Your task to perform on an android device: turn on the 24-hour format for clock Image 0: 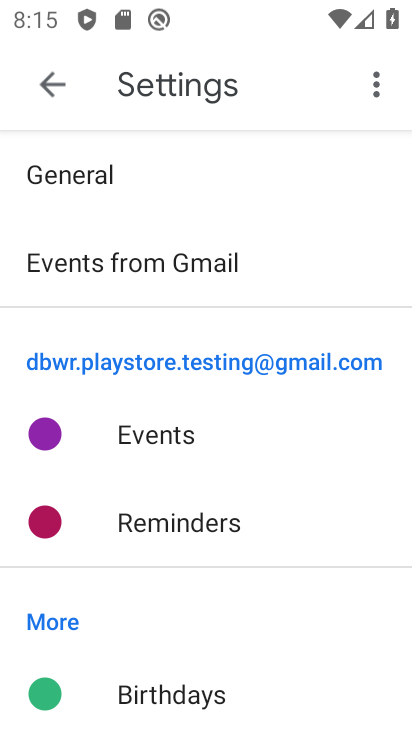
Step 0: press home button
Your task to perform on an android device: turn on the 24-hour format for clock Image 1: 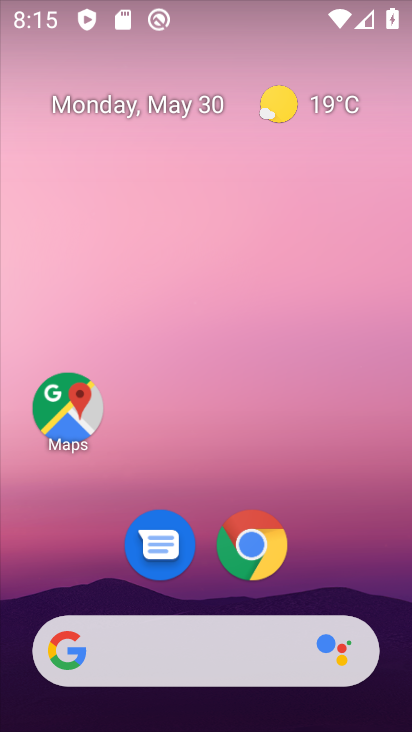
Step 1: drag from (338, 568) to (283, 150)
Your task to perform on an android device: turn on the 24-hour format for clock Image 2: 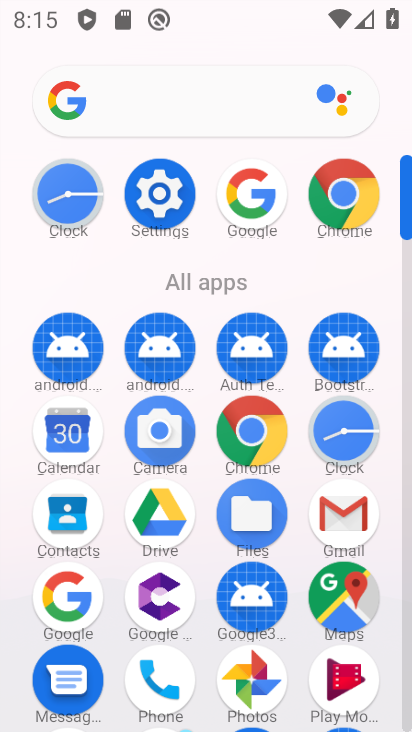
Step 2: click (344, 428)
Your task to perform on an android device: turn on the 24-hour format for clock Image 3: 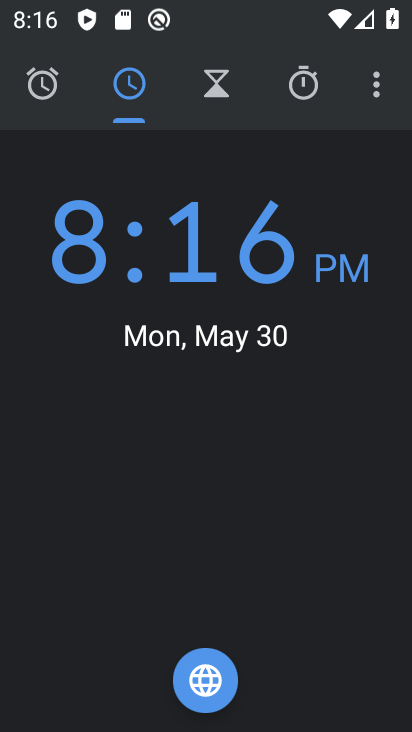
Step 3: click (384, 83)
Your task to perform on an android device: turn on the 24-hour format for clock Image 4: 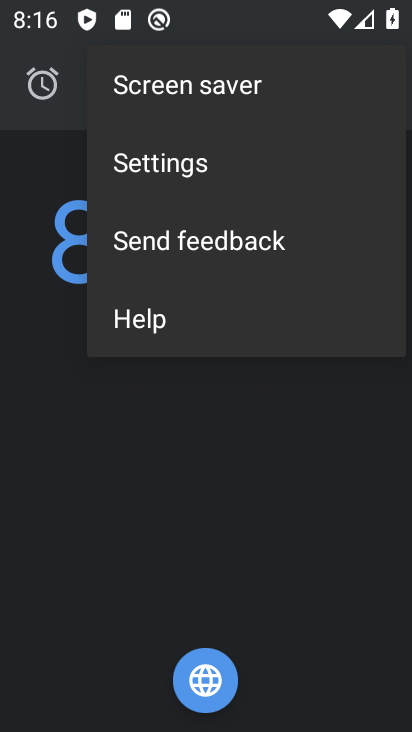
Step 4: click (215, 152)
Your task to perform on an android device: turn on the 24-hour format for clock Image 5: 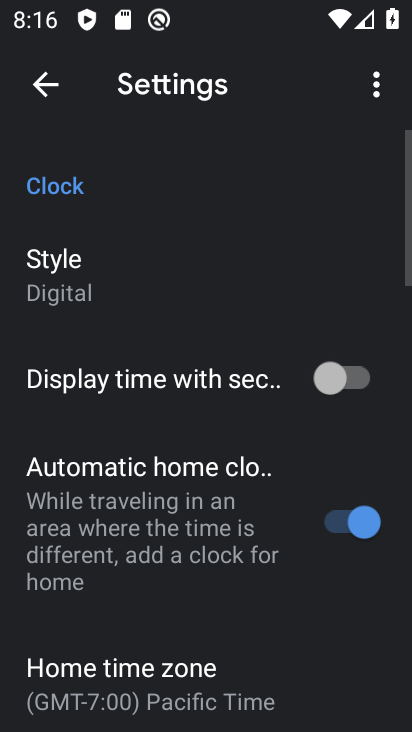
Step 5: drag from (154, 639) to (177, 232)
Your task to perform on an android device: turn on the 24-hour format for clock Image 6: 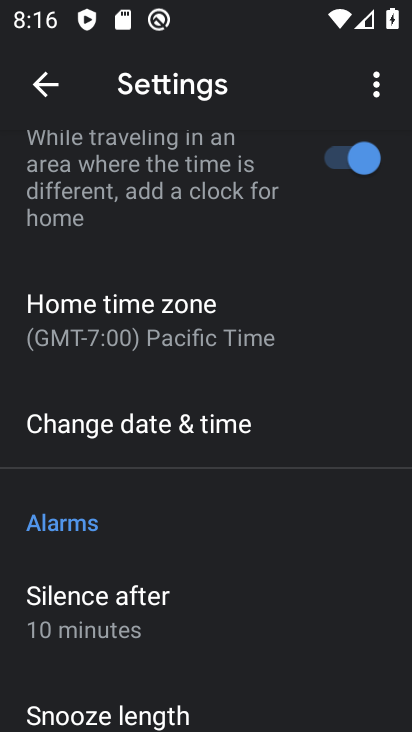
Step 6: click (168, 412)
Your task to perform on an android device: turn on the 24-hour format for clock Image 7: 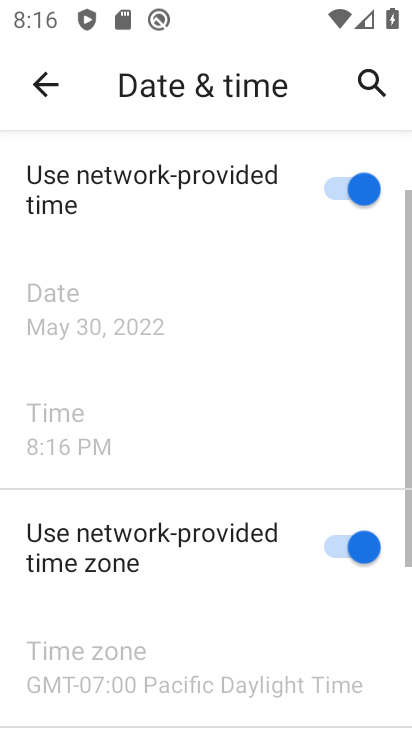
Step 7: drag from (251, 567) to (209, 118)
Your task to perform on an android device: turn on the 24-hour format for clock Image 8: 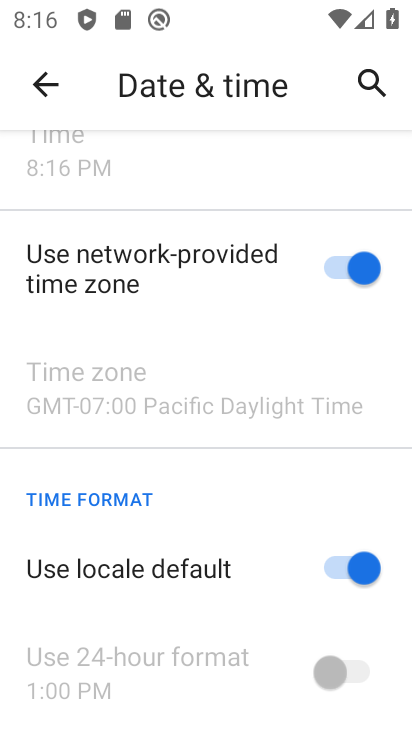
Step 8: click (339, 575)
Your task to perform on an android device: turn on the 24-hour format for clock Image 9: 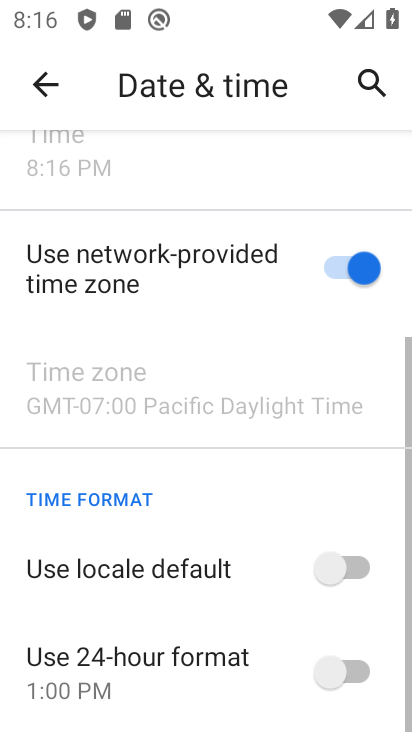
Step 9: click (361, 667)
Your task to perform on an android device: turn on the 24-hour format for clock Image 10: 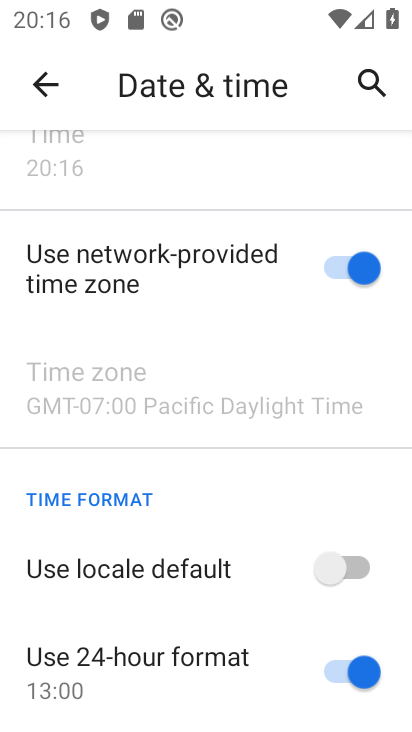
Step 10: task complete